Your task to perform on an android device: turn off data saver in the chrome app Image 0: 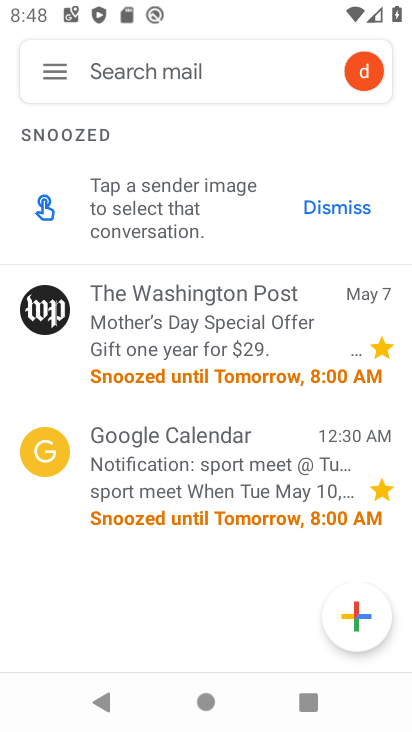
Step 0: press home button
Your task to perform on an android device: turn off data saver in the chrome app Image 1: 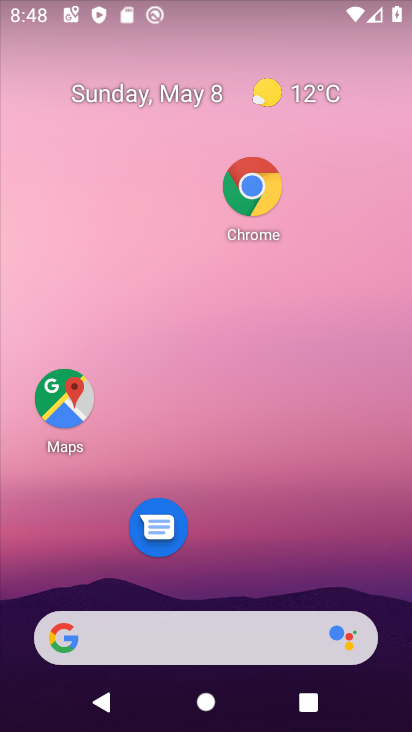
Step 1: drag from (266, 549) to (306, 256)
Your task to perform on an android device: turn off data saver in the chrome app Image 2: 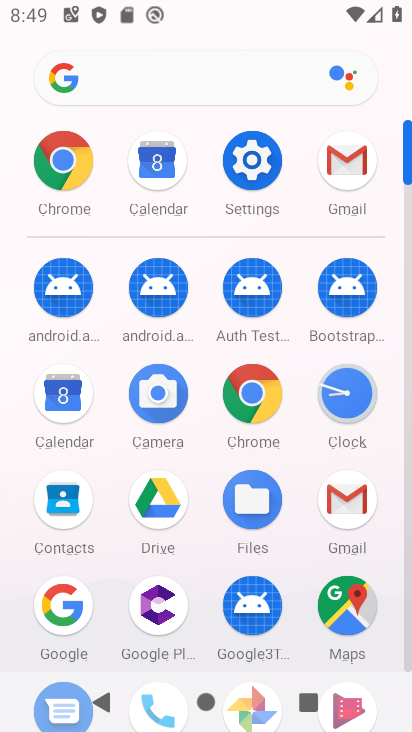
Step 2: click (257, 389)
Your task to perform on an android device: turn off data saver in the chrome app Image 3: 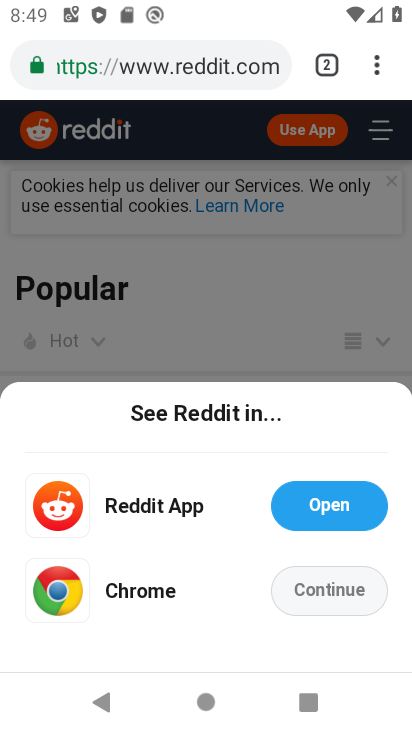
Step 3: click (373, 59)
Your task to perform on an android device: turn off data saver in the chrome app Image 4: 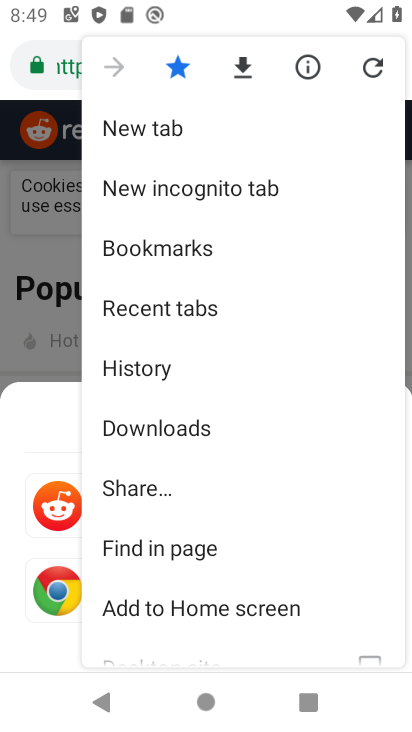
Step 4: drag from (184, 564) to (214, 305)
Your task to perform on an android device: turn off data saver in the chrome app Image 5: 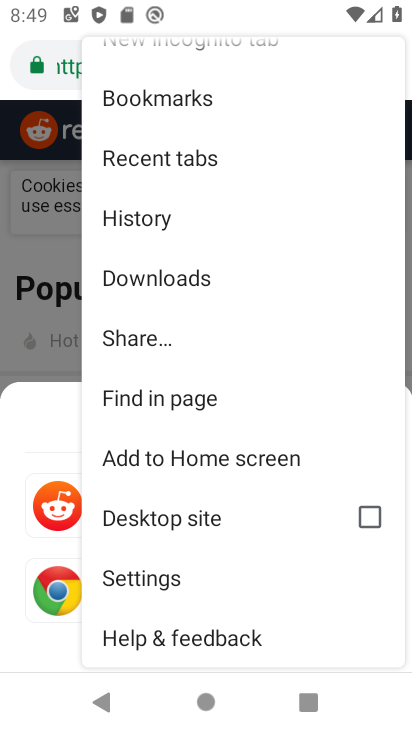
Step 5: click (170, 578)
Your task to perform on an android device: turn off data saver in the chrome app Image 6: 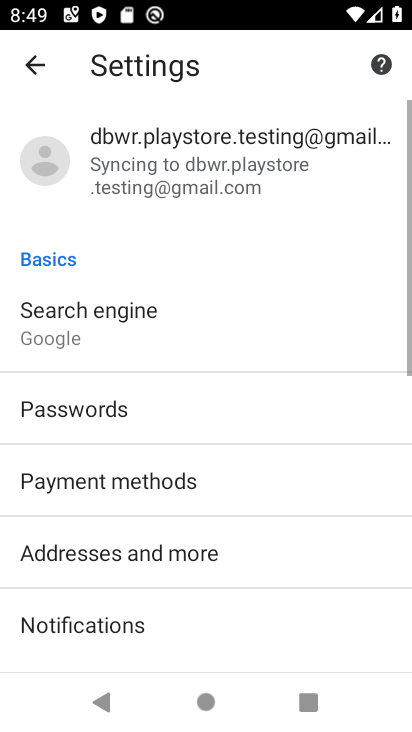
Step 6: drag from (154, 562) to (200, 205)
Your task to perform on an android device: turn off data saver in the chrome app Image 7: 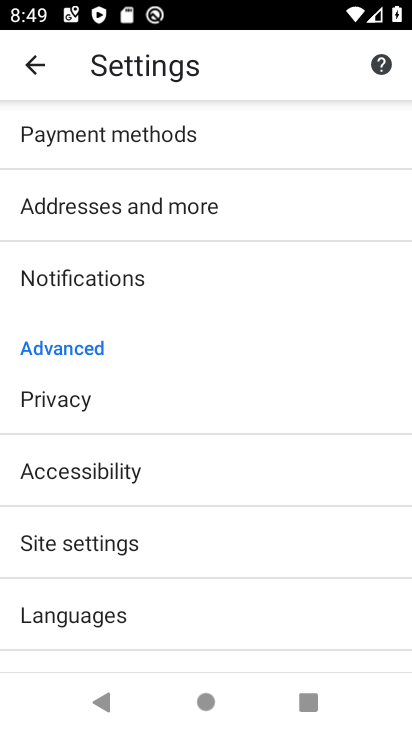
Step 7: drag from (139, 560) to (206, 243)
Your task to perform on an android device: turn off data saver in the chrome app Image 8: 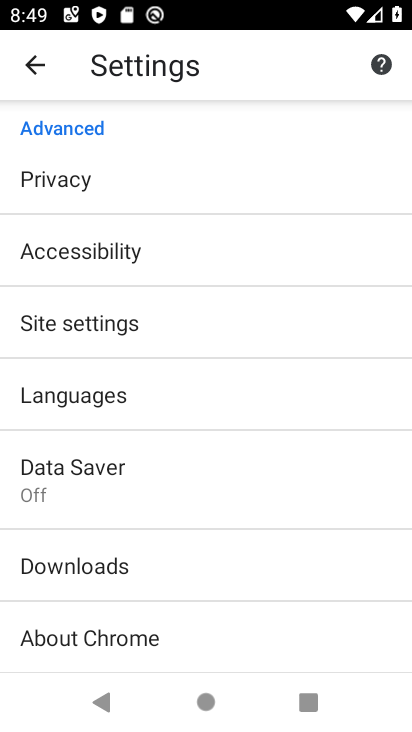
Step 8: click (132, 485)
Your task to perform on an android device: turn off data saver in the chrome app Image 9: 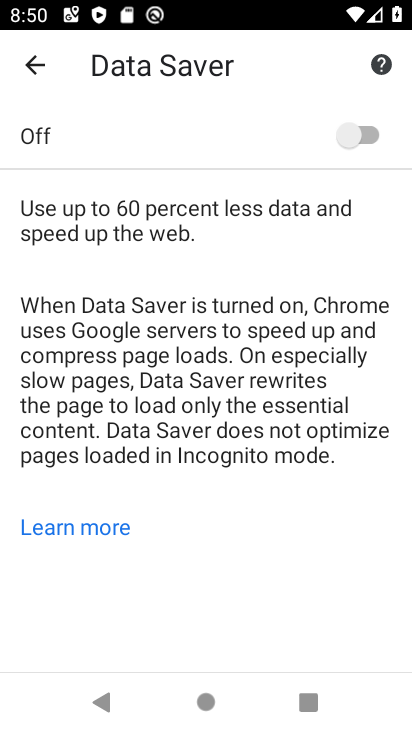
Step 9: task complete